Your task to perform on an android device: empty trash in the gmail app Image 0: 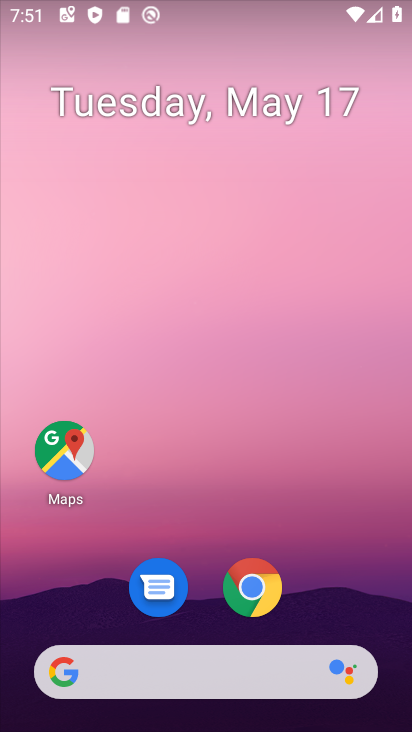
Step 0: drag from (342, 582) to (298, 166)
Your task to perform on an android device: empty trash in the gmail app Image 1: 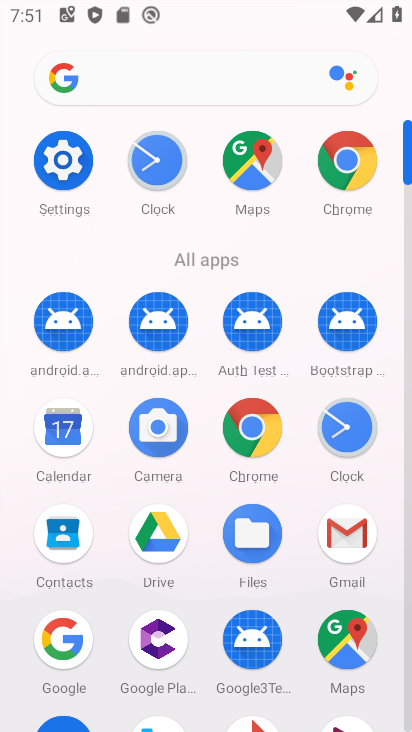
Step 1: click (349, 538)
Your task to perform on an android device: empty trash in the gmail app Image 2: 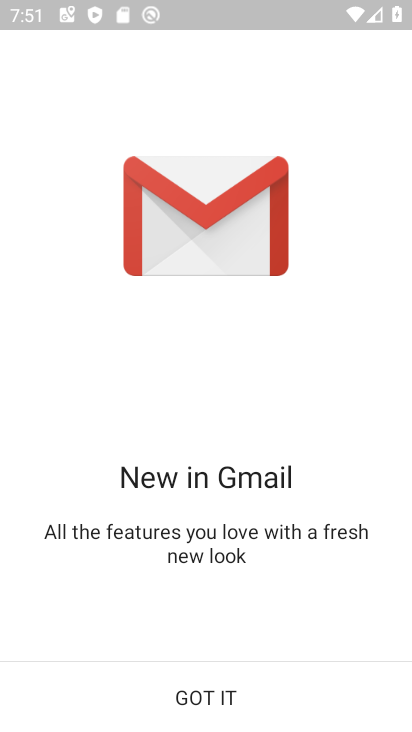
Step 2: click (197, 717)
Your task to perform on an android device: empty trash in the gmail app Image 3: 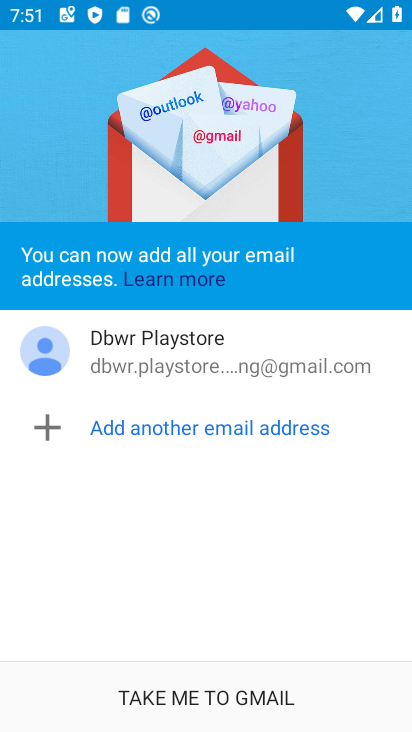
Step 3: click (220, 692)
Your task to perform on an android device: empty trash in the gmail app Image 4: 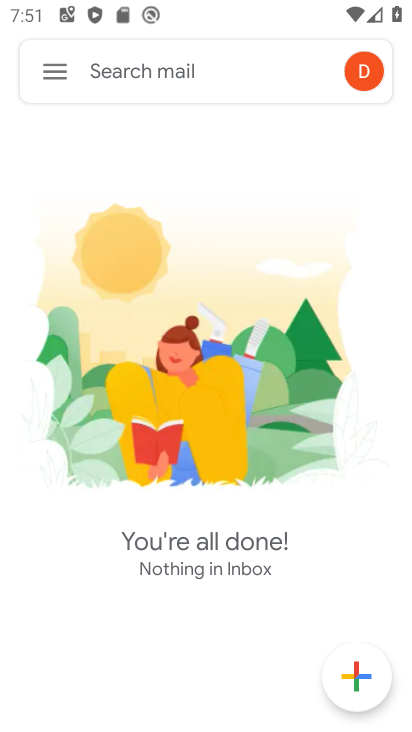
Step 4: click (57, 60)
Your task to perform on an android device: empty trash in the gmail app Image 5: 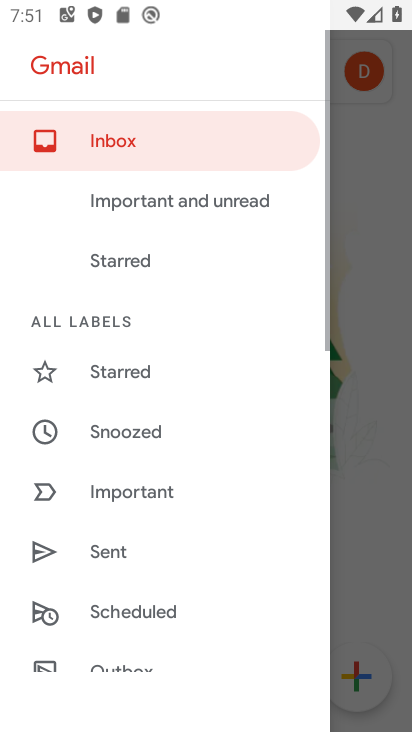
Step 5: drag from (162, 680) to (176, 271)
Your task to perform on an android device: empty trash in the gmail app Image 6: 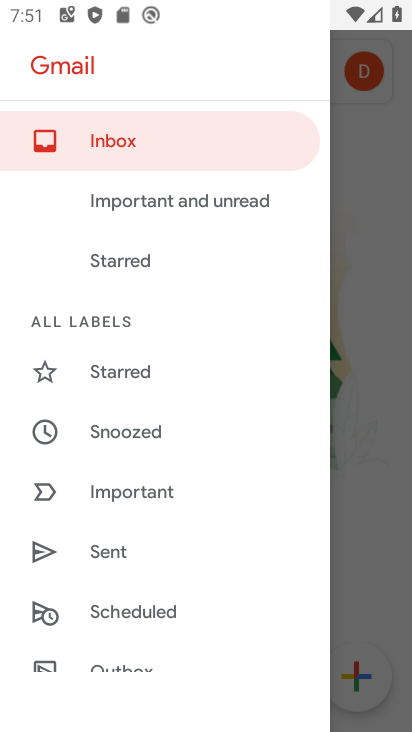
Step 6: drag from (146, 566) to (199, 309)
Your task to perform on an android device: empty trash in the gmail app Image 7: 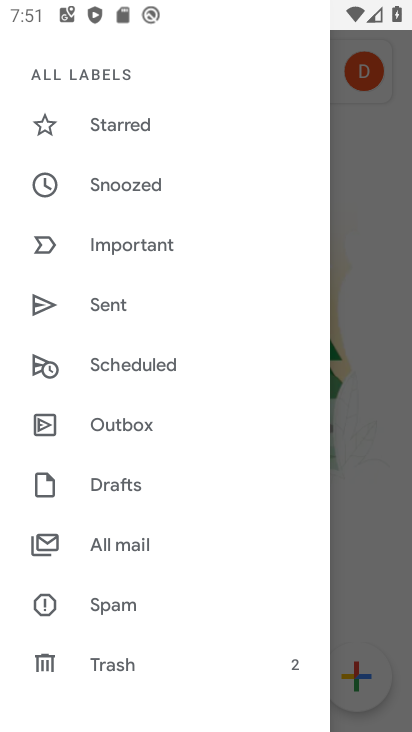
Step 7: click (120, 657)
Your task to perform on an android device: empty trash in the gmail app Image 8: 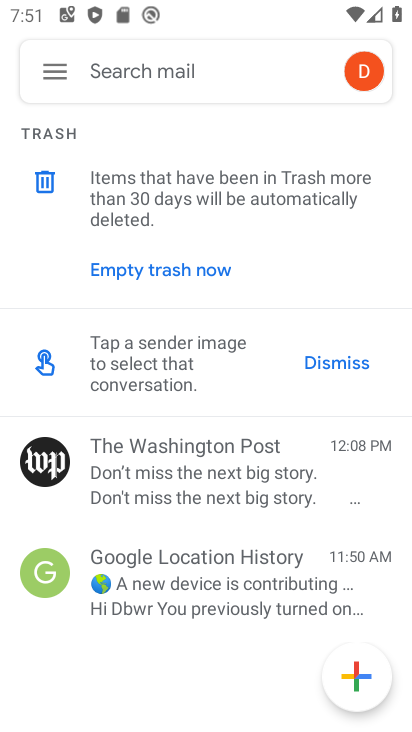
Step 8: click (50, 180)
Your task to perform on an android device: empty trash in the gmail app Image 9: 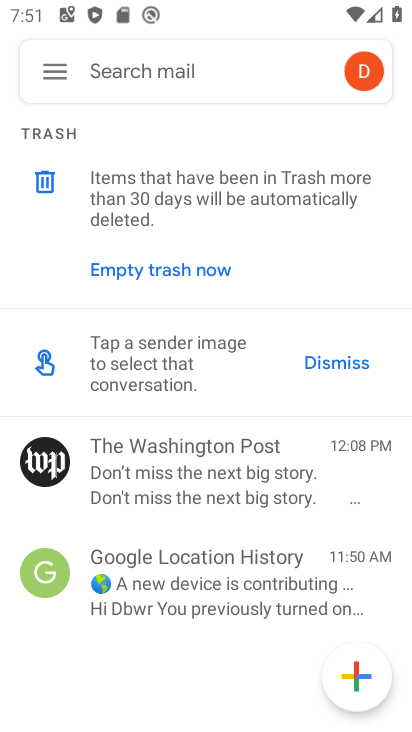
Step 9: click (52, 182)
Your task to perform on an android device: empty trash in the gmail app Image 10: 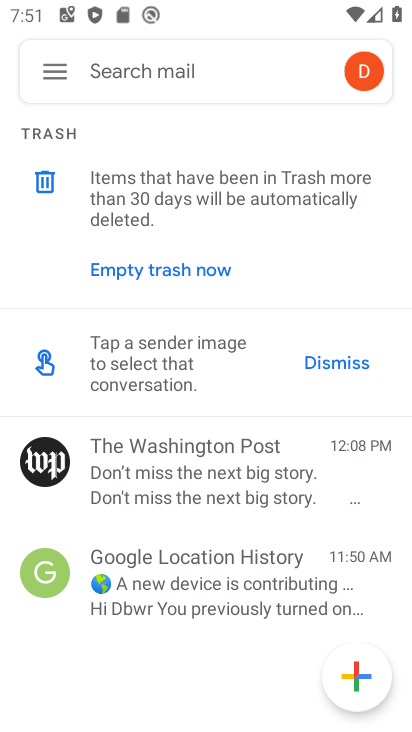
Step 10: click (207, 270)
Your task to perform on an android device: empty trash in the gmail app Image 11: 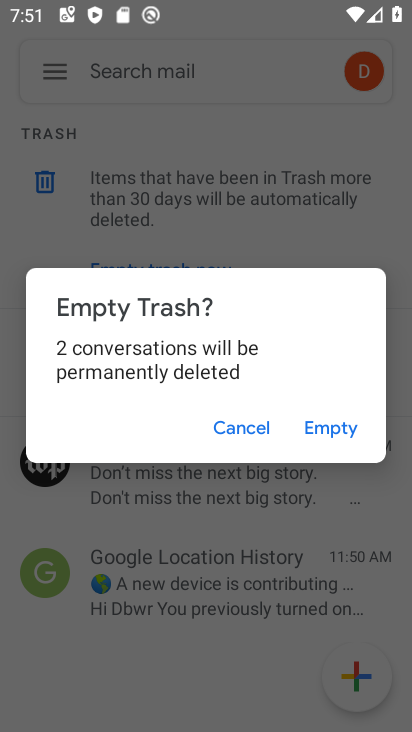
Step 11: click (349, 428)
Your task to perform on an android device: empty trash in the gmail app Image 12: 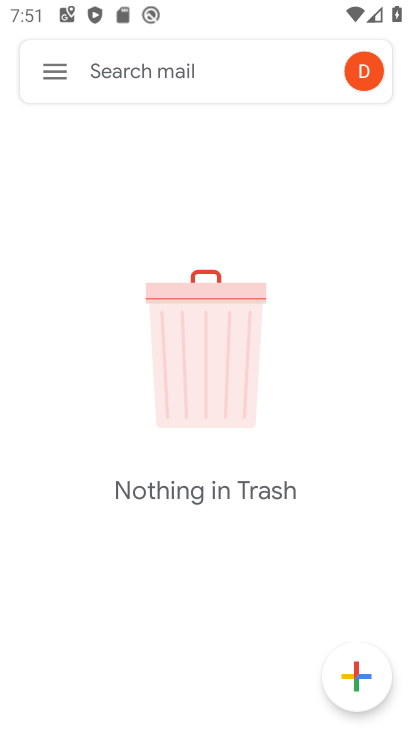
Step 12: task complete